Your task to perform on an android device: Open the Play Movies app and select the watchlist tab. Image 0: 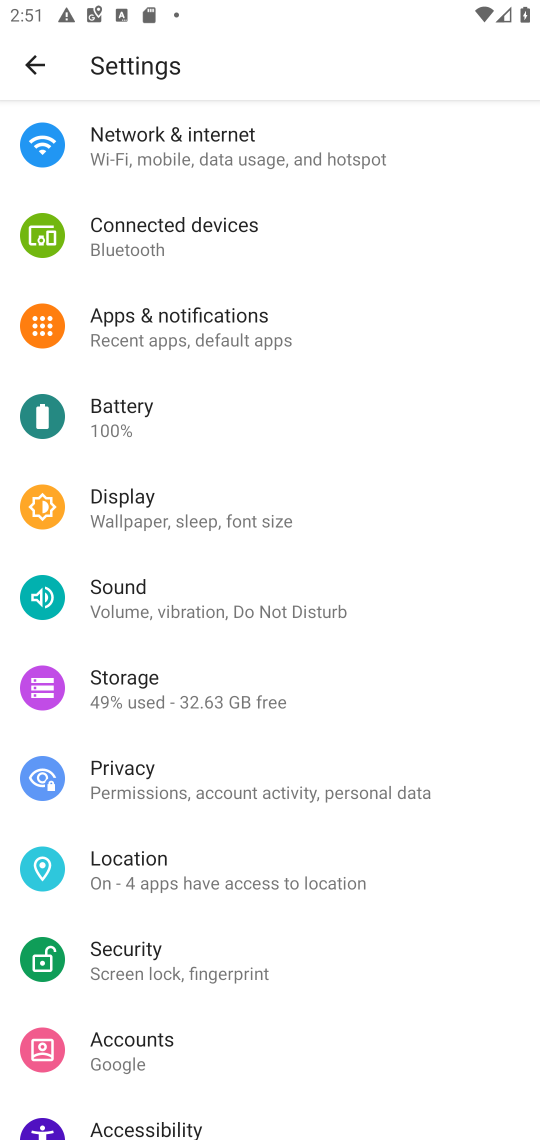
Step 0: press home button
Your task to perform on an android device: Open the Play Movies app and select the watchlist tab. Image 1: 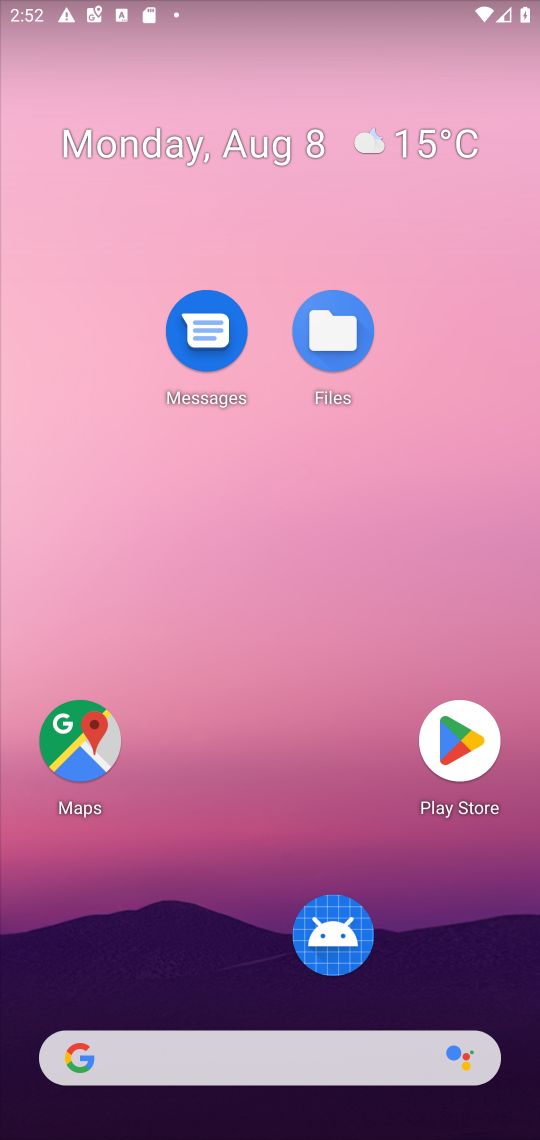
Step 1: drag from (222, 1048) to (338, 99)
Your task to perform on an android device: Open the Play Movies app and select the watchlist tab. Image 2: 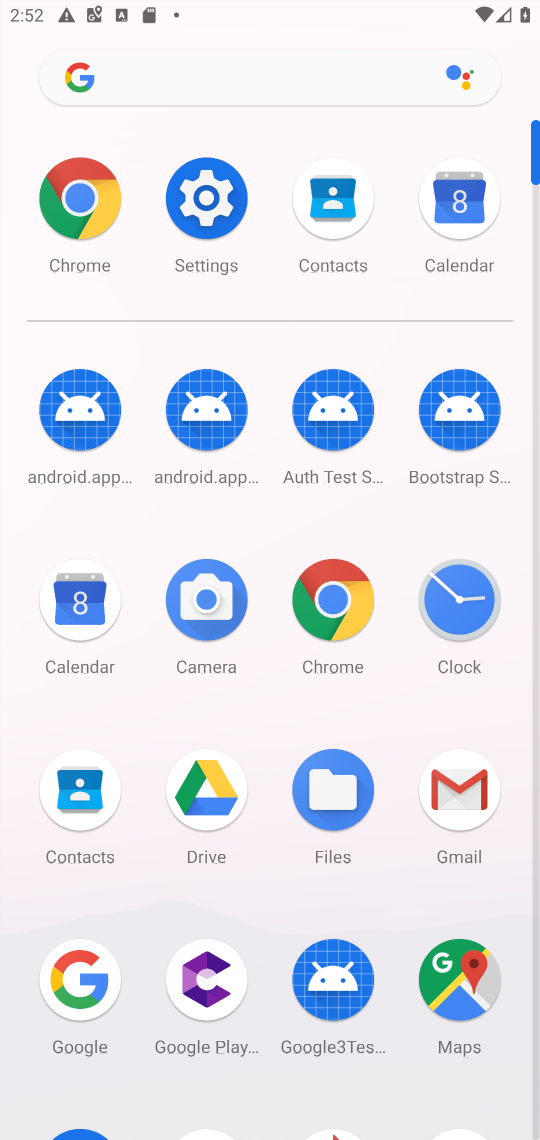
Step 2: drag from (250, 741) to (244, 355)
Your task to perform on an android device: Open the Play Movies app and select the watchlist tab. Image 3: 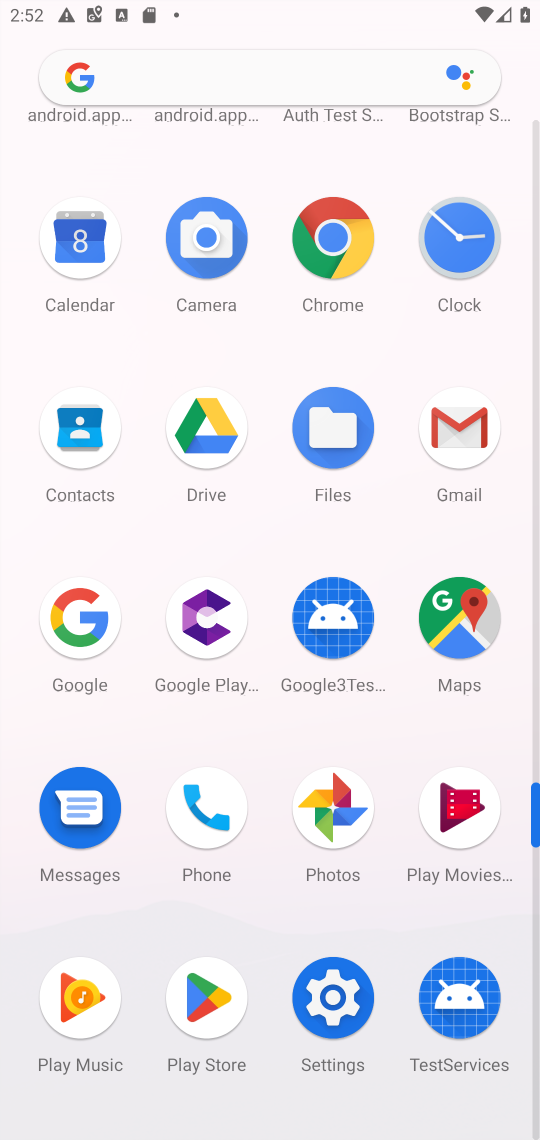
Step 3: click (455, 792)
Your task to perform on an android device: Open the Play Movies app and select the watchlist tab. Image 4: 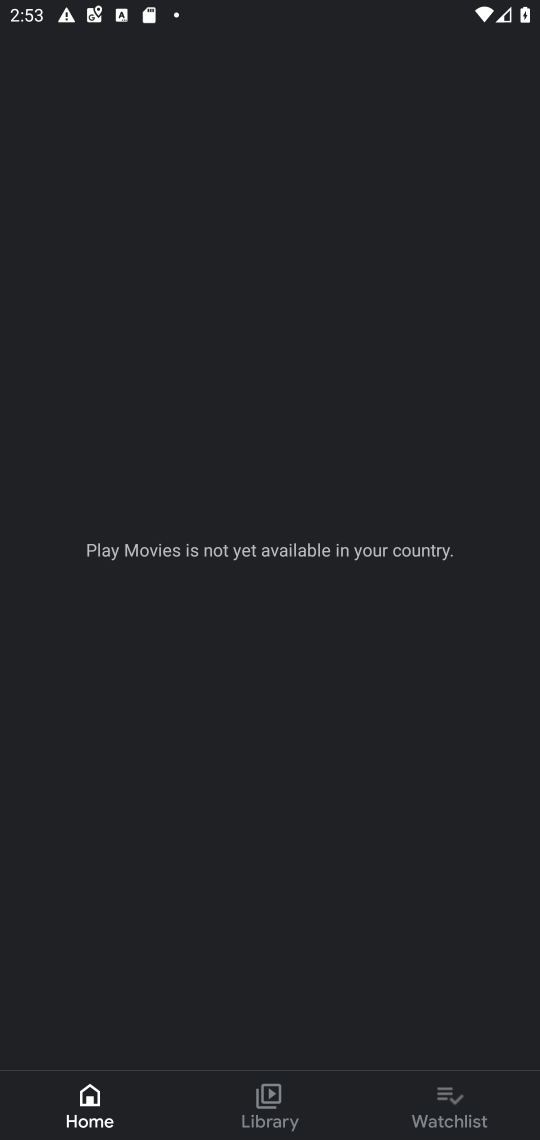
Step 4: click (448, 1098)
Your task to perform on an android device: Open the Play Movies app and select the watchlist tab. Image 5: 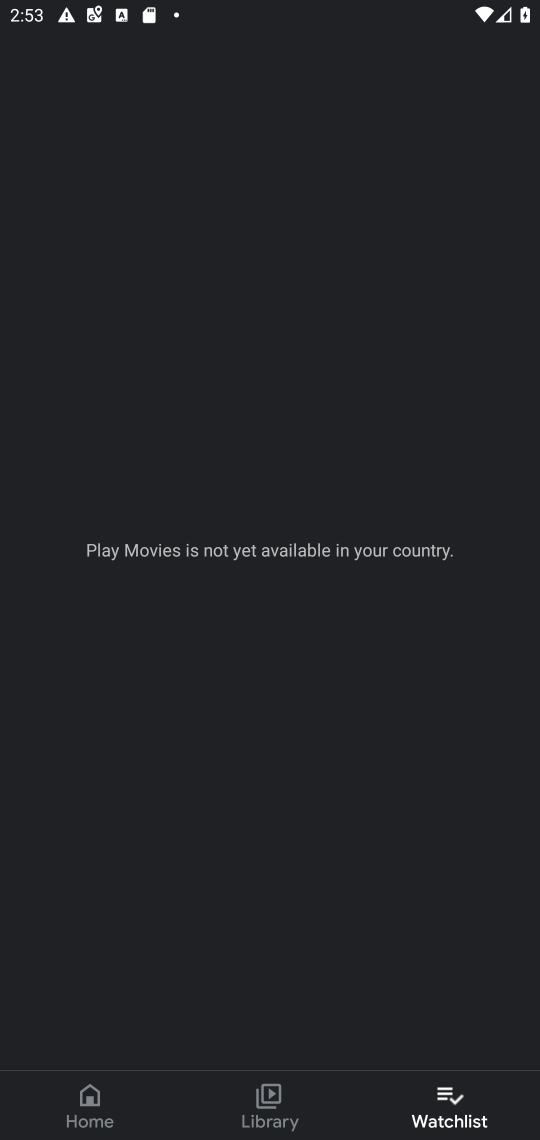
Step 5: task complete